Your task to perform on an android device: turn off location Image 0: 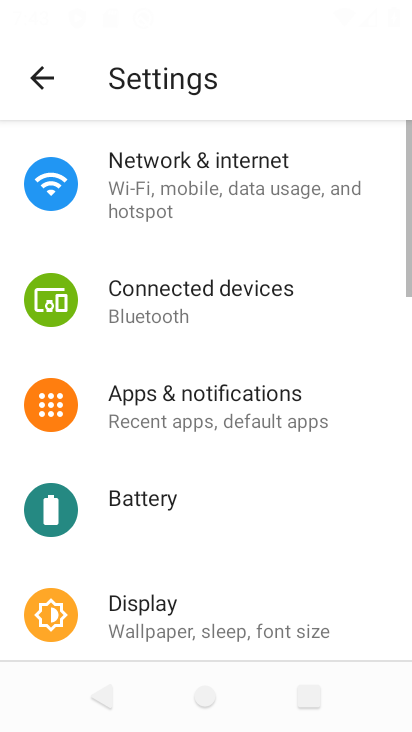
Step 0: press home button
Your task to perform on an android device: turn off location Image 1: 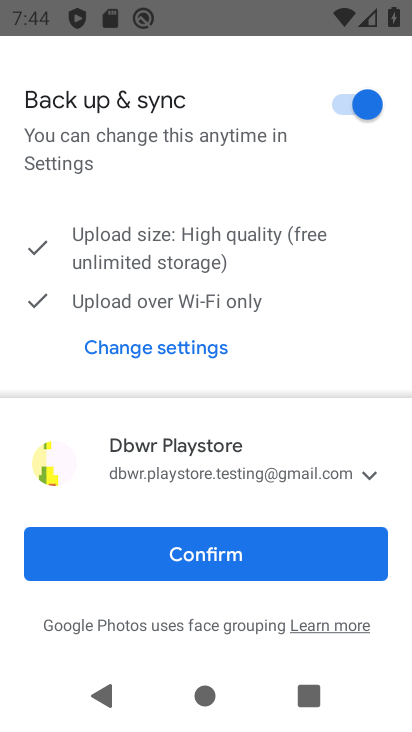
Step 1: press home button
Your task to perform on an android device: turn off location Image 2: 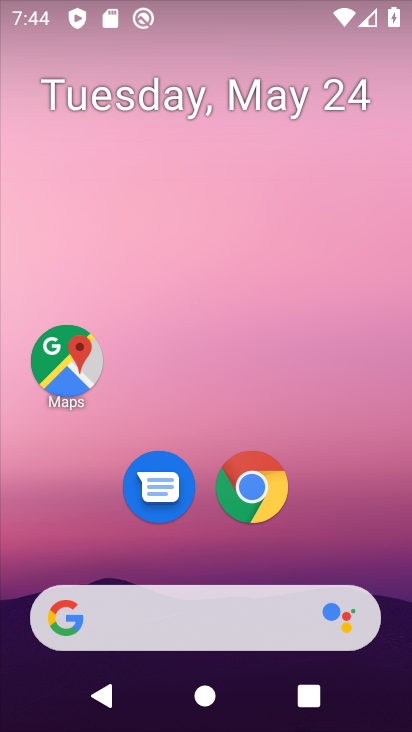
Step 2: drag from (48, 590) to (214, 175)
Your task to perform on an android device: turn off location Image 3: 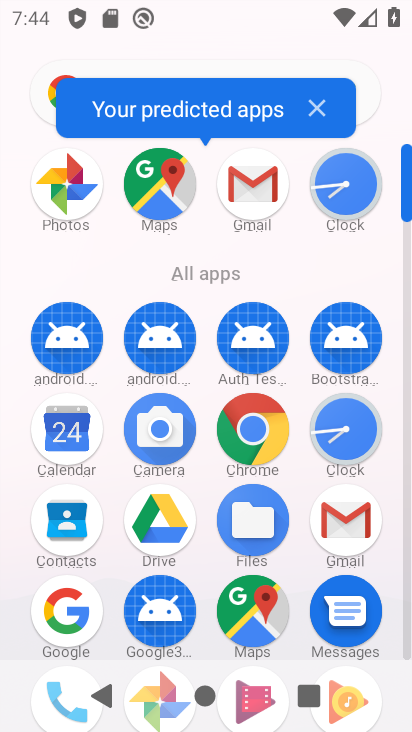
Step 3: drag from (14, 577) to (195, 152)
Your task to perform on an android device: turn off location Image 4: 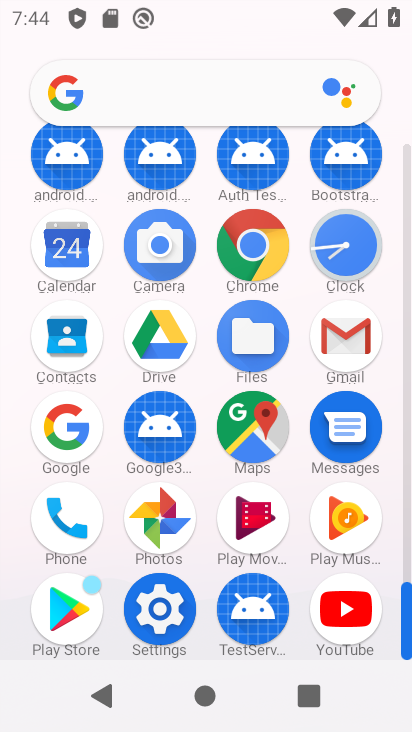
Step 4: click (162, 624)
Your task to perform on an android device: turn off location Image 5: 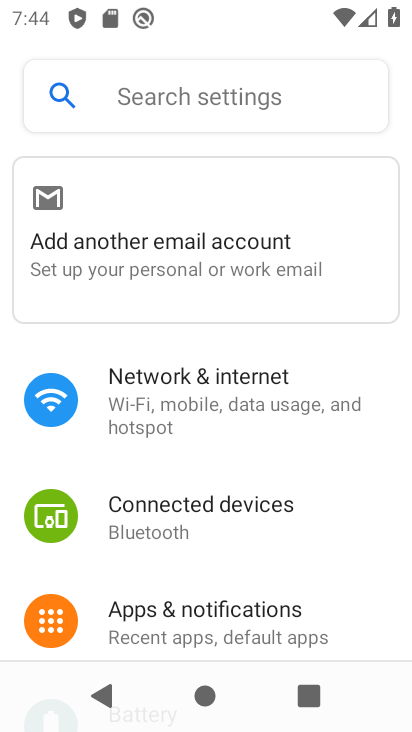
Step 5: drag from (13, 519) to (221, 130)
Your task to perform on an android device: turn off location Image 6: 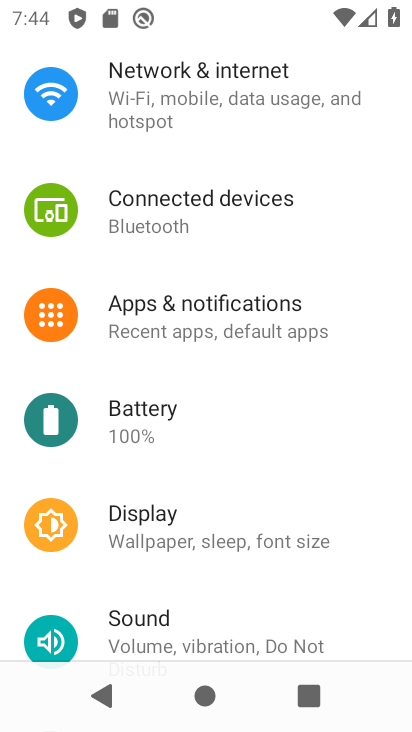
Step 6: drag from (12, 559) to (253, 151)
Your task to perform on an android device: turn off location Image 7: 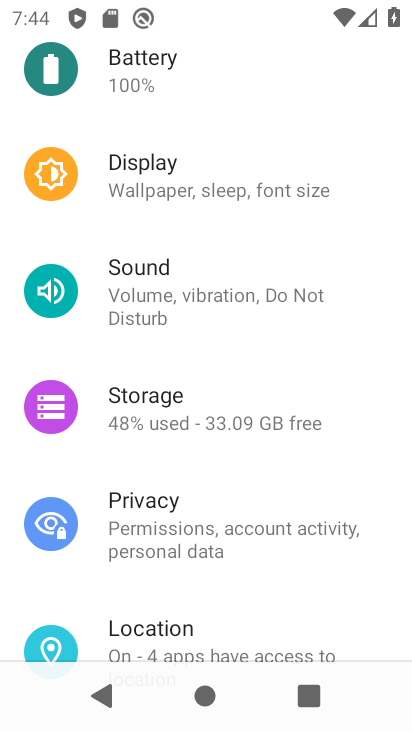
Step 7: click (142, 632)
Your task to perform on an android device: turn off location Image 8: 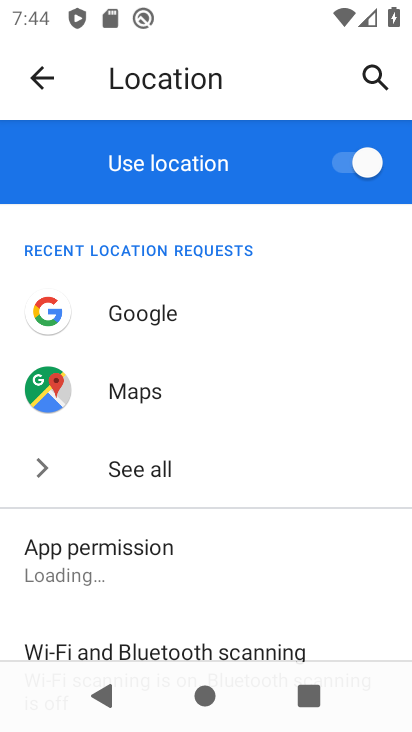
Step 8: click (363, 163)
Your task to perform on an android device: turn off location Image 9: 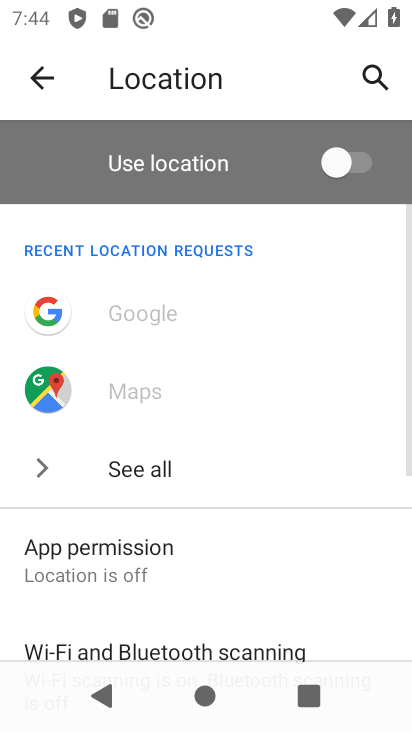
Step 9: task complete